Your task to perform on an android device: Open the web browser Image 0: 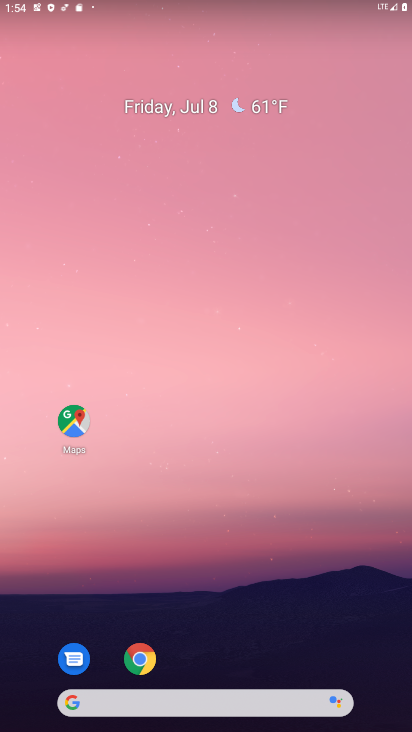
Step 0: drag from (218, 673) to (226, 117)
Your task to perform on an android device: Open the web browser Image 1: 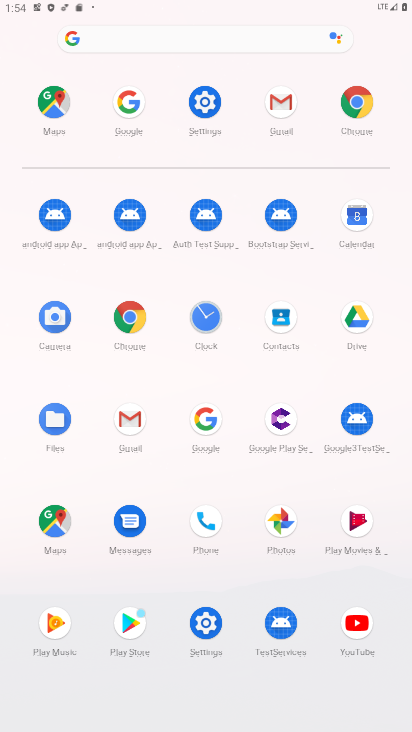
Step 1: drag from (136, 319) to (154, 391)
Your task to perform on an android device: Open the web browser Image 2: 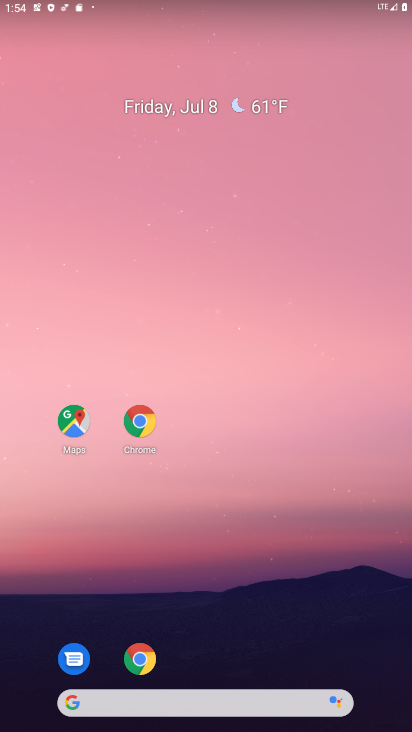
Step 2: click (197, 711)
Your task to perform on an android device: Open the web browser Image 3: 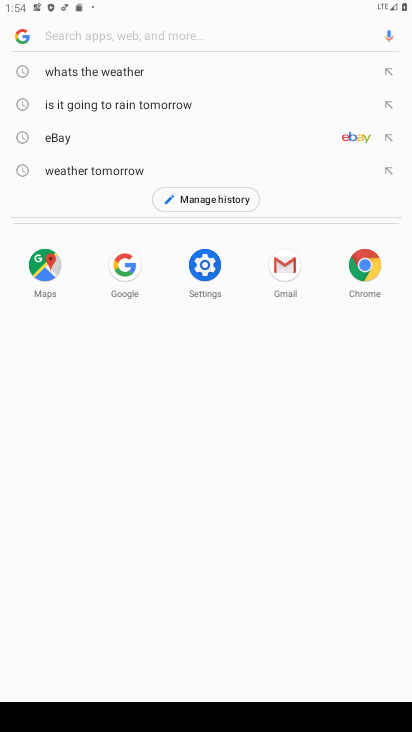
Step 3: task complete